Your task to perform on an android device: Go to Amazon Image 0: 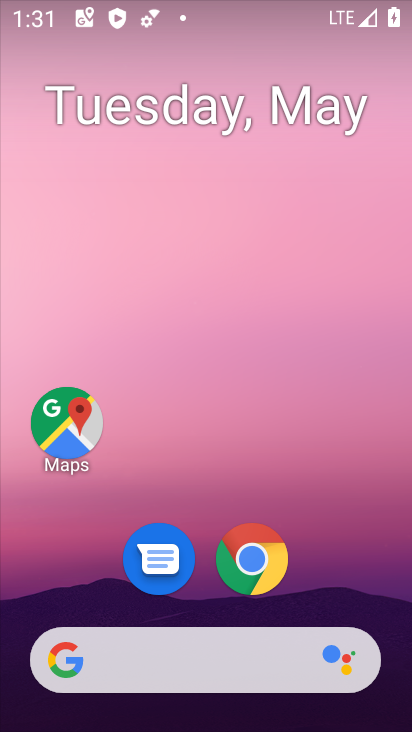
Step 0: click (252, 550)
Your task to perform on an android device: Go to Amazon Image 1: 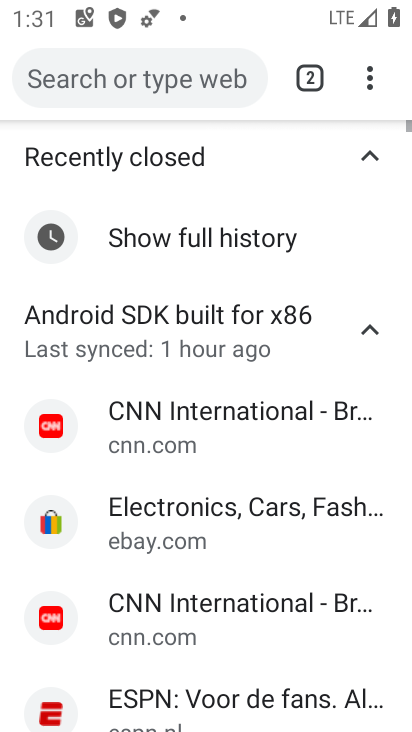
Step 1: click (317, 74)
Your task to perform on an android device: Go to Amazon Image 2: 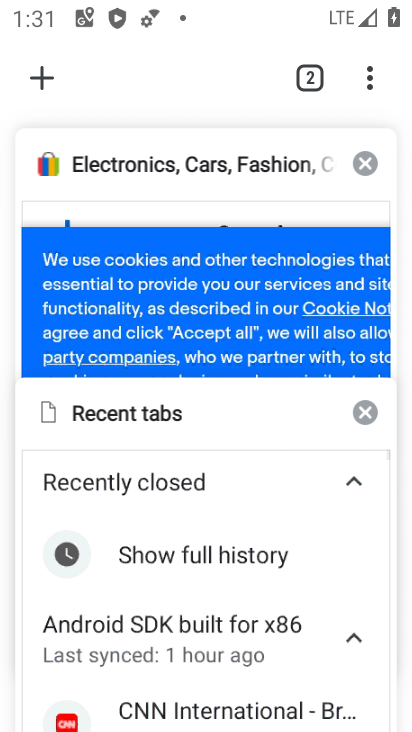
Step 2: click (32, 82)
Your task to perform on an android device: Go to Amazon Image 3: 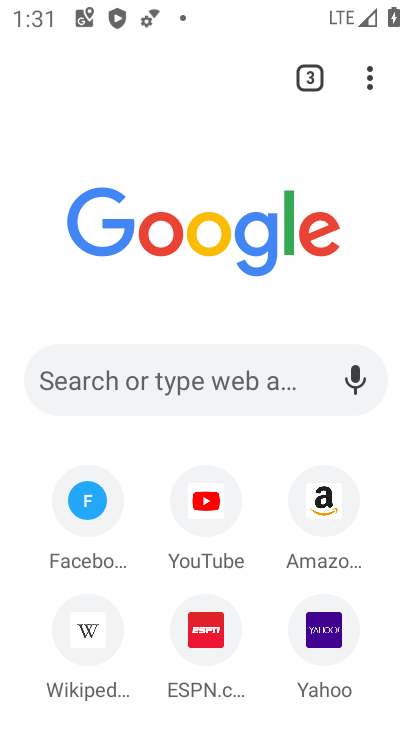
Step 3: click (321, 492)
Your task to perform on an android device: Go to Amazon Image 4: 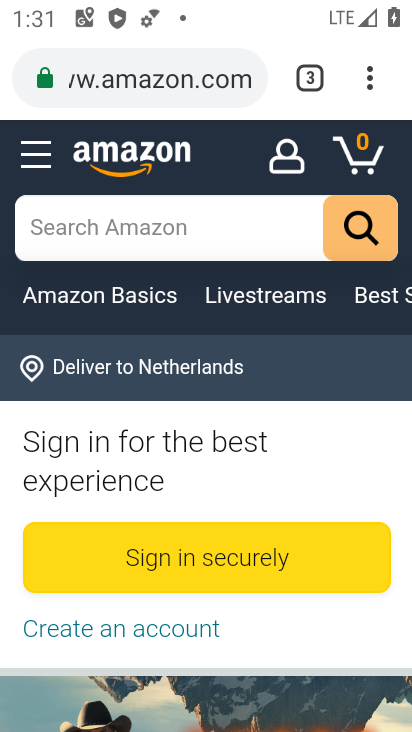
Step 4: task complete